Your task to perform on an android device: turn off wifi Image 0: 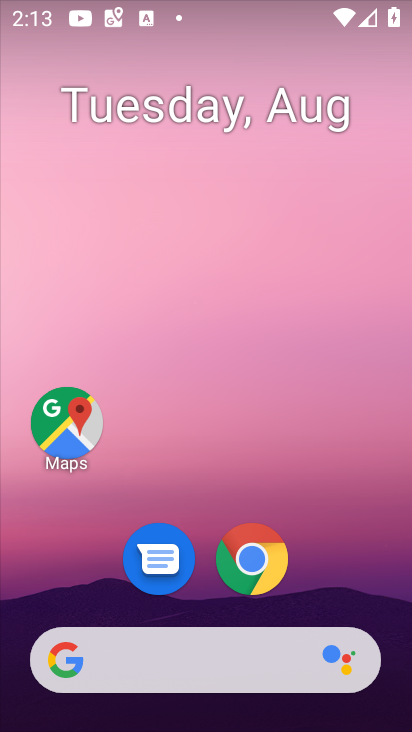
Step 0: drag from (200, 502) to (180, 152)
Your task to perform on an android device: turn off wifi Image 1: 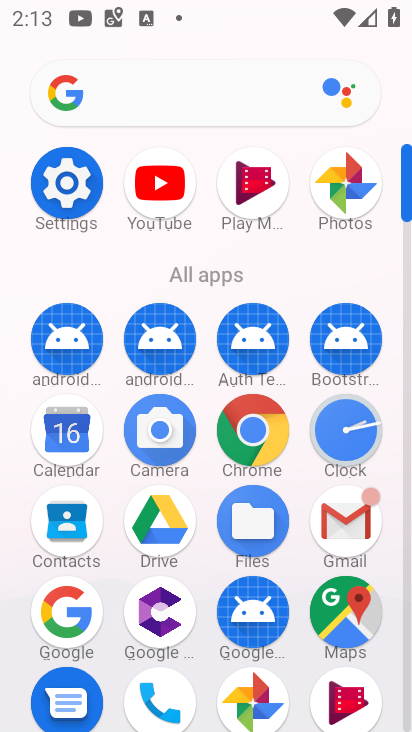
Step 1: click (89, 176)
Your task to perform on an android device: turn off wifi Image 2: 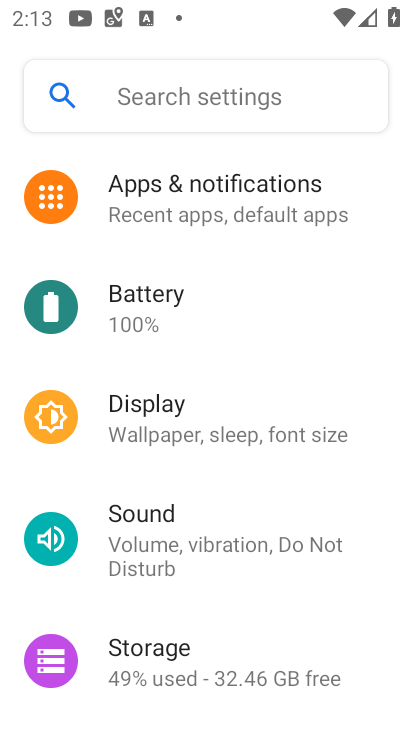
Step 2: drag from (196, 225) to (195, 530)
Your task to perform on an android device: turn off wifi Image 3: 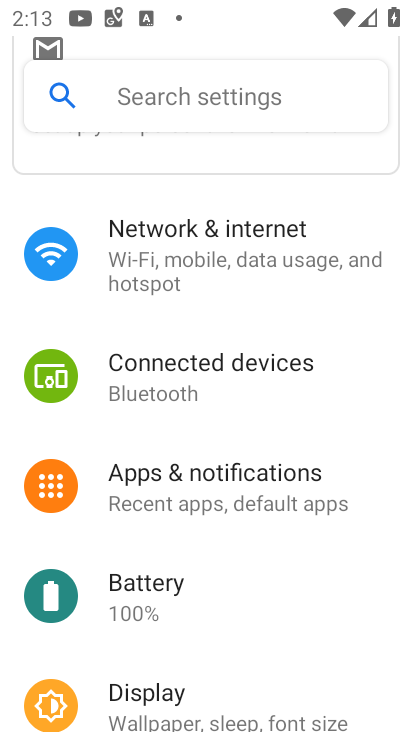
Step 3: click (187, 238)
Your task to perform on an android device: turn off wifi Image 4: 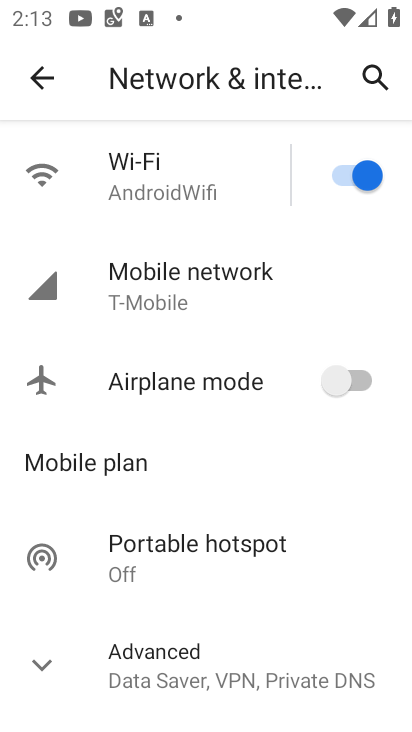
Step 4: click (360, 170)
Your task to perform on an android device: turn off wifi Image 5: 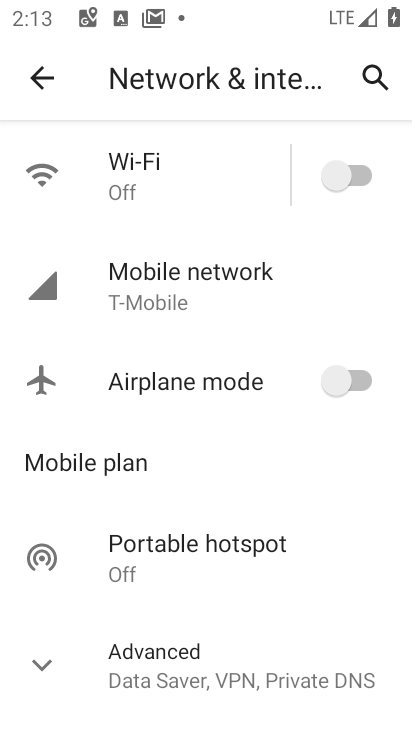
Step 5: task complete